Your task to perform on an android device: Open Android settings Image 0: 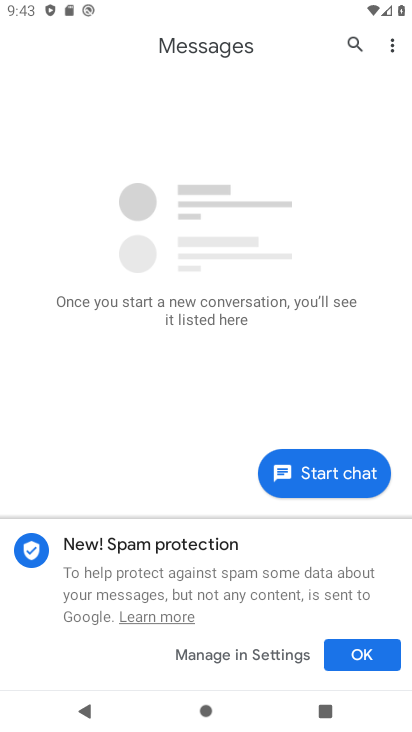
Step 0: press home button
Your task to perform on an android device: Open Android settings Image 1: 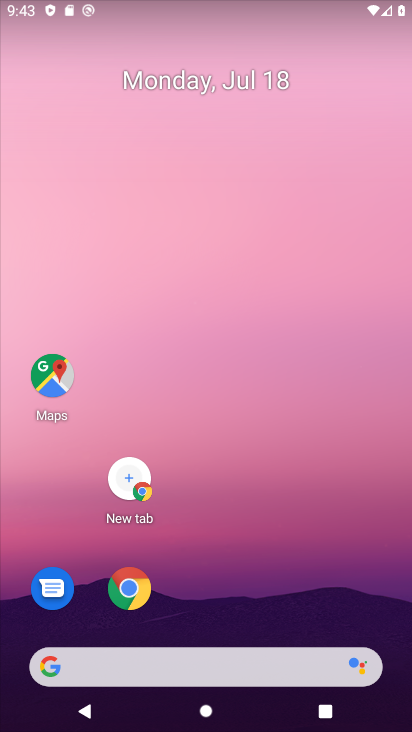
Step 1: drag from (174, 637) to (252, 8)
Your task to perform on an android device: Open Android settings Image 2: 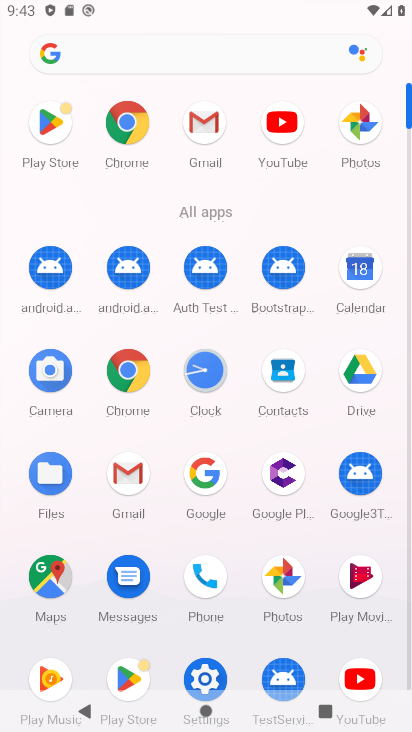
Step 2: click (208, 673)
Your task to perform on an android device: Open Android settings Image 3: 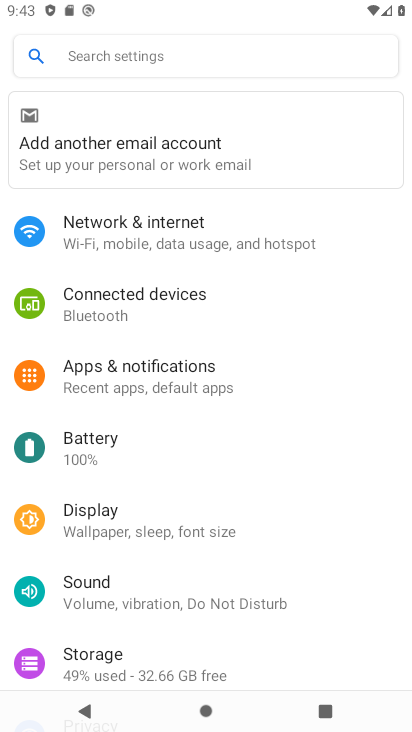
Step 3: task complete